Your task to perform on an android device: Search for desk lamps on article.com Image 0: 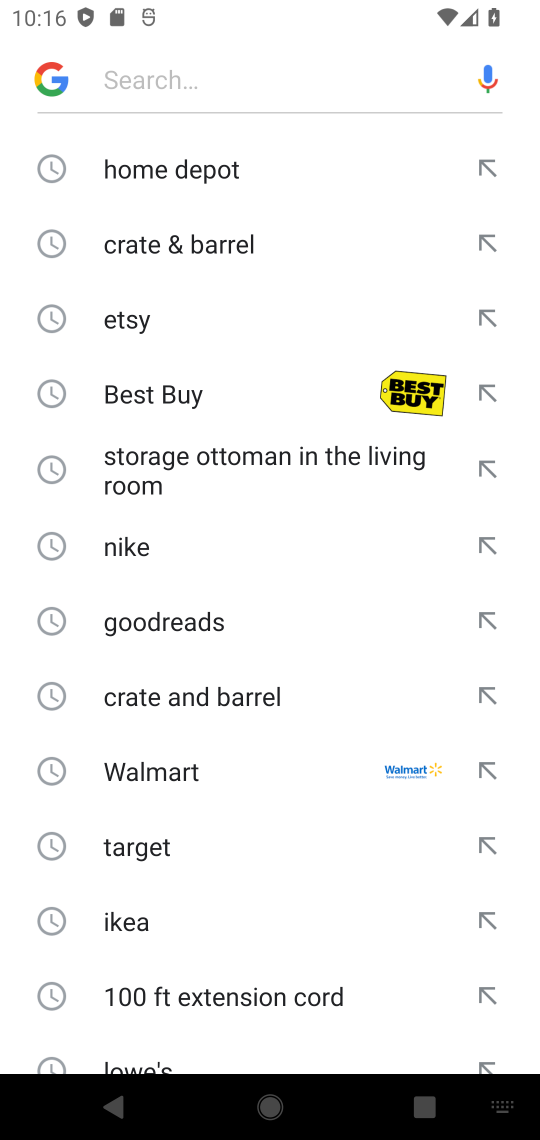
Step 0: press home button
Your task to perform on an android device: Search for desk lamps on article.com Image 1: 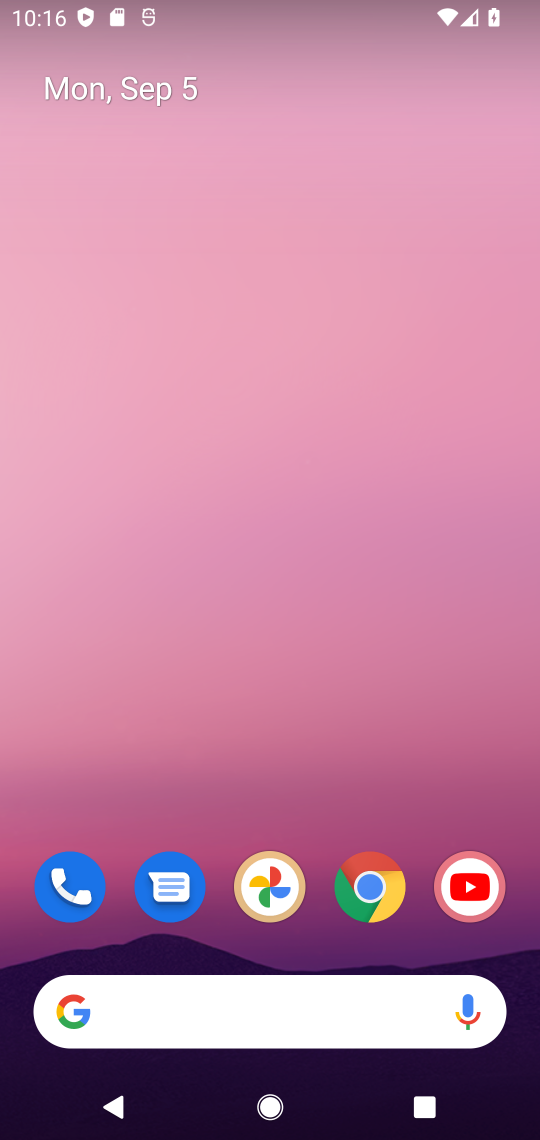
Step 1: click (345, 865)
Your task to perform on an android device: Search for desk lamps on article.com Image 2: 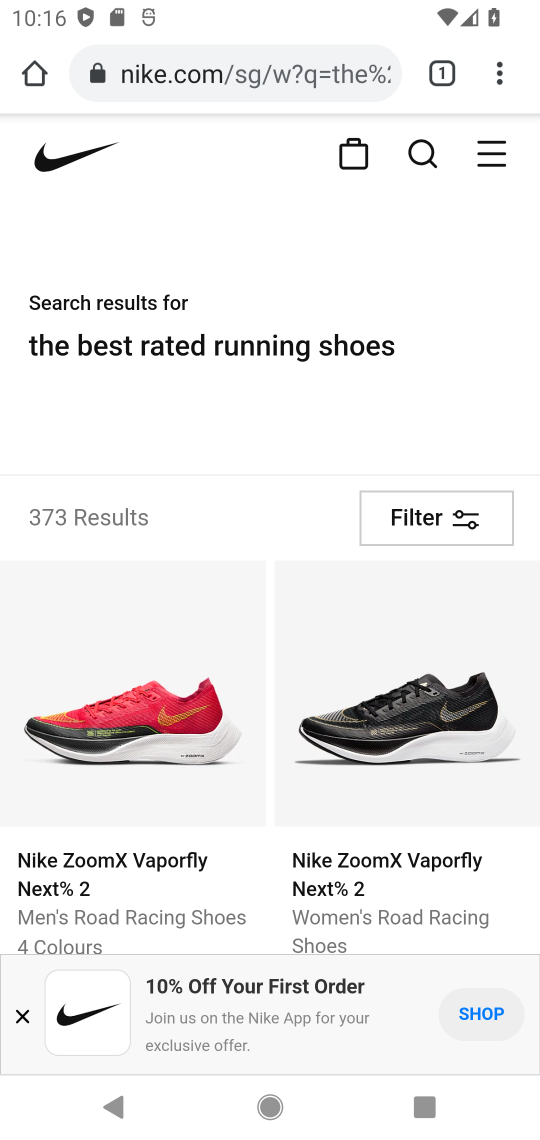
Step 2: click (254, 67)
Your task to perform on an android device: Search for desk lamps on article.com Image 3: 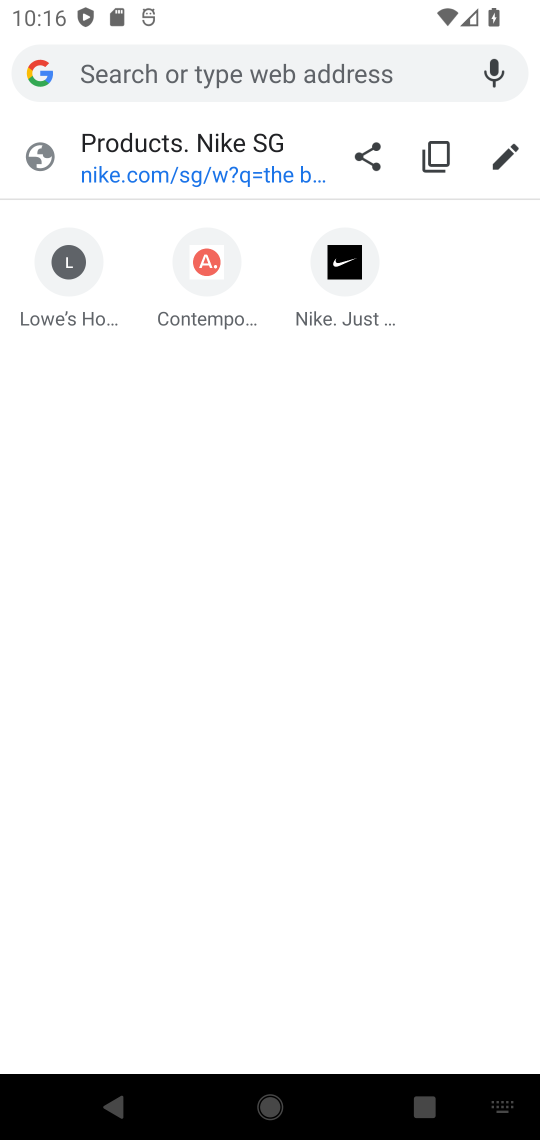
Step 3: type "Article.com"
Your task to perform on an android device: Search for desk lamps on article.com Image 4: 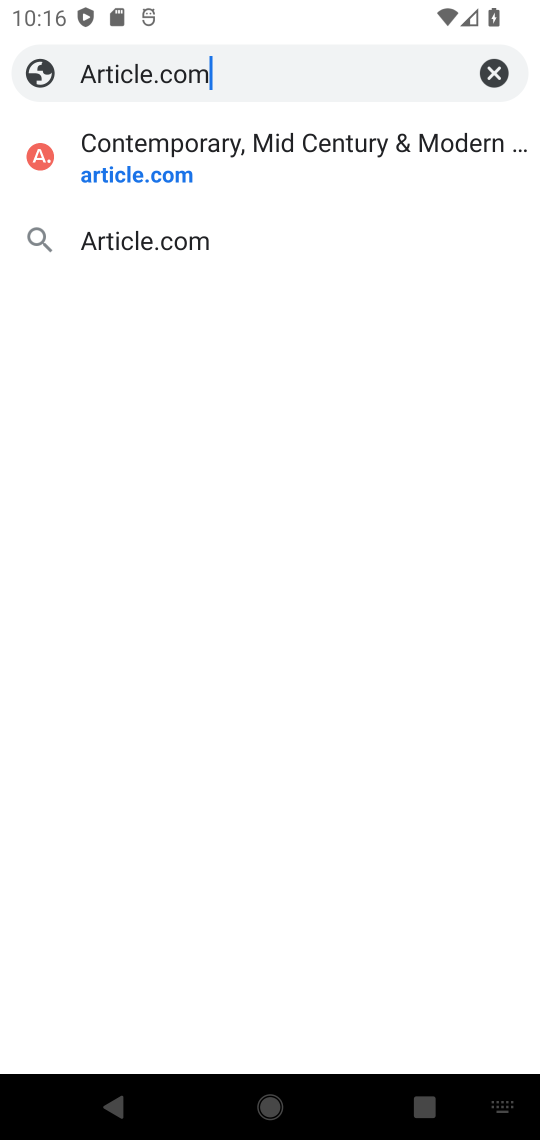
Step 4: click (137, 237)
Your task to perform on an android device: Search for desk lamps on article.com Image 5: 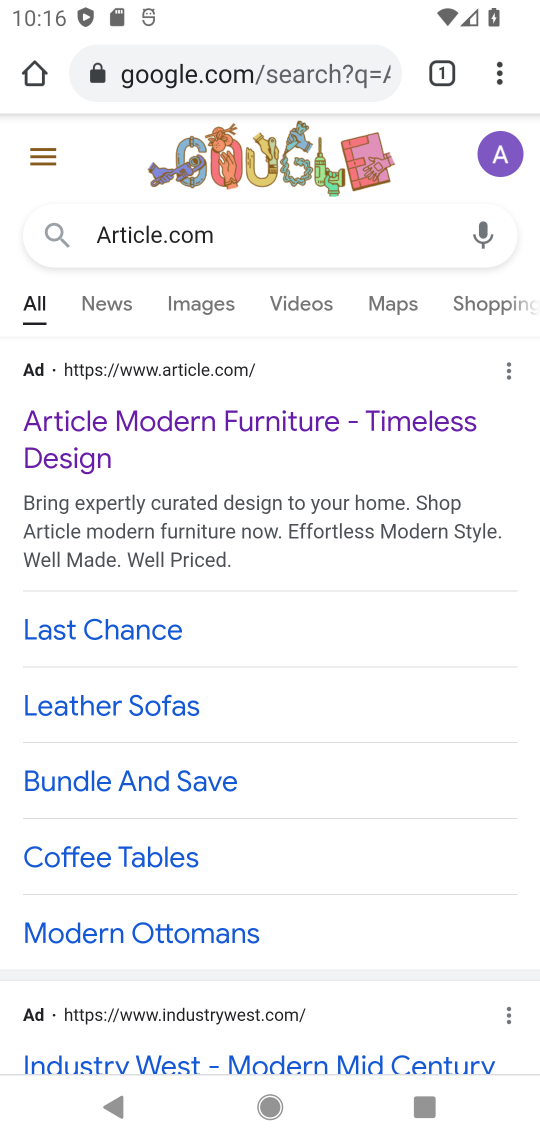
Step 5: click (86, 461)
Your task to perform on an android device: Search for desk lamps on article.com Image 6: 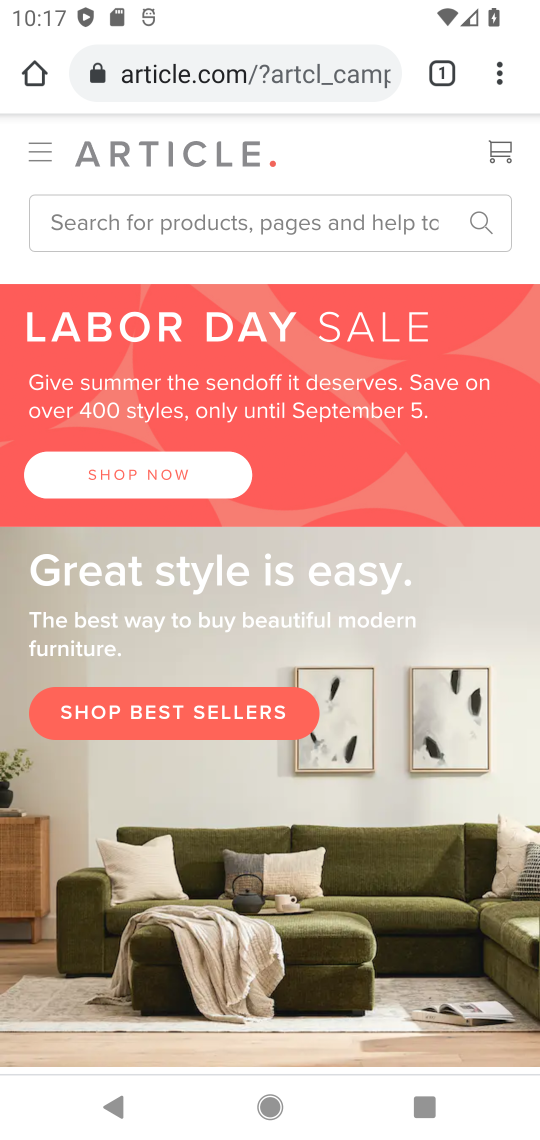
Step 6: click (122, 221)
Your task to perform on an android device: Search for desk lamps on article.com Image 7: 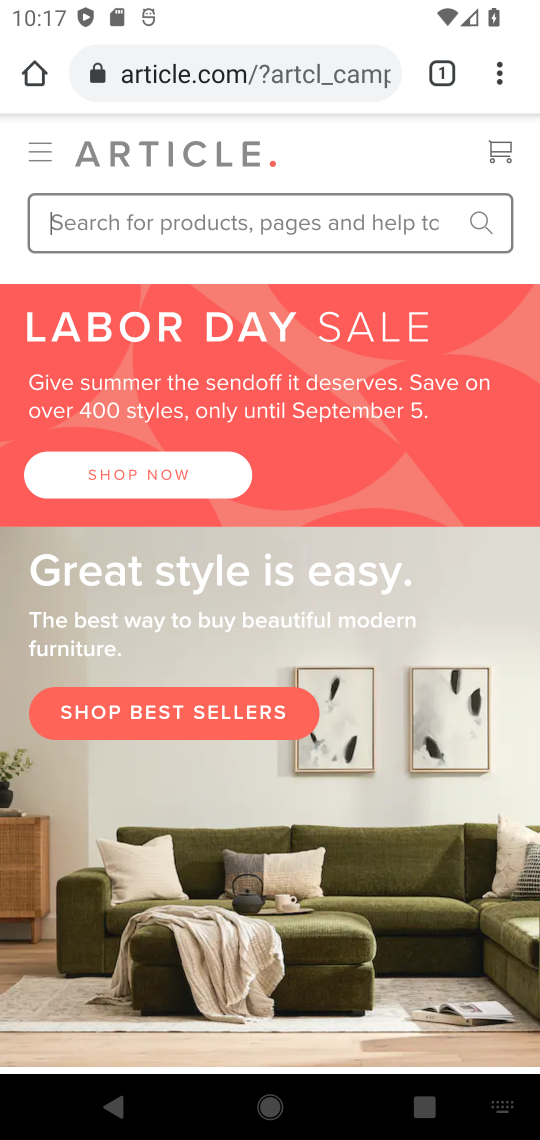
Step 7: type "desk lamps"
Your task to perform on an android device: Search for desk lamps on article.com Image 8: 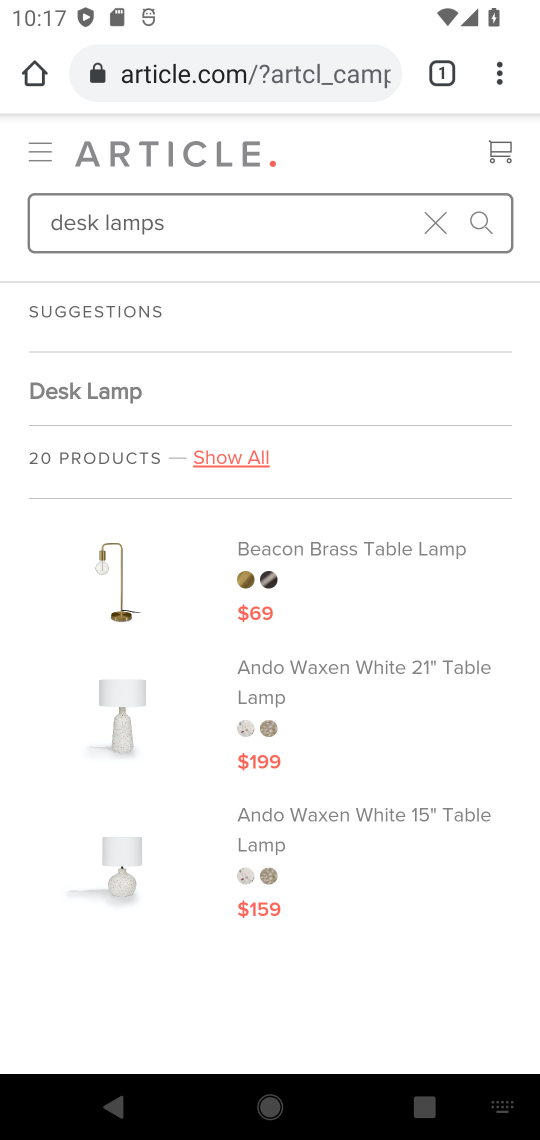
Step 8: task complete